Your task to perform on an android device: Go to accessibility settings Image 0: 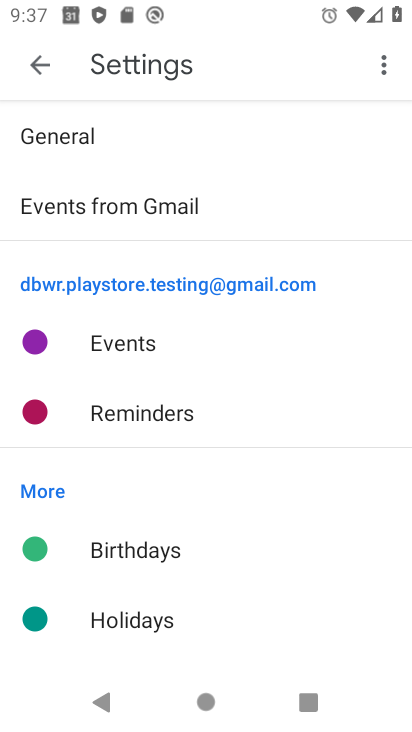
Step 0: press home button
Your task to perform on an android device: Go to accessibility settings Image 1: 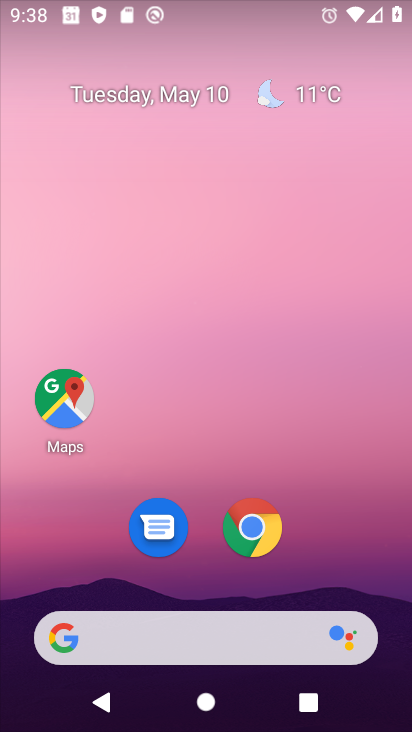
Step 1: drag from (342, 525) to (297, 53)
Your task to perform on an android device: Go to accessibility settings Image 2: 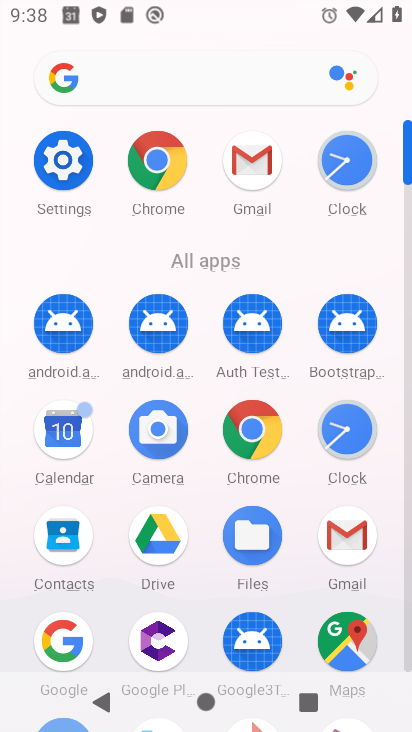
Step 2: click (62, 169)
Your task to perform on an android device: Go to accessibility settings Image 3: 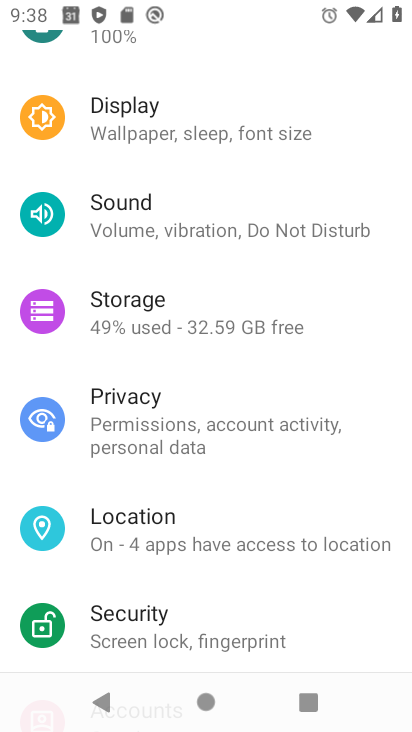
Step 3: drag from (247, 534) to (199, 197)
Your task to perform on an android device: Go to accessibility settings Image 4: 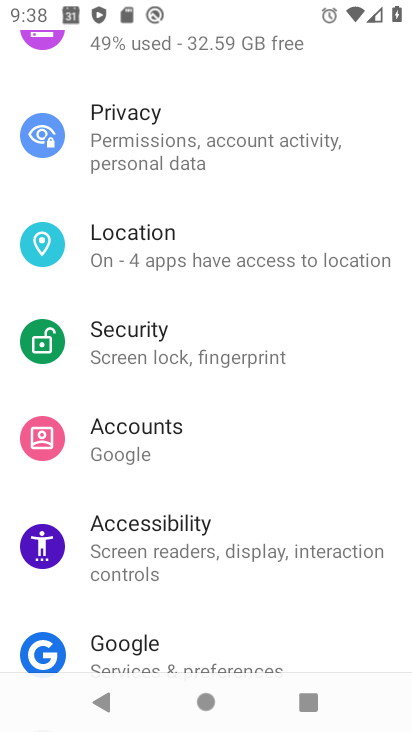
Step 4: click (266, 546)
Your task to perform on an android device: Go to accessibility settings Image 5: 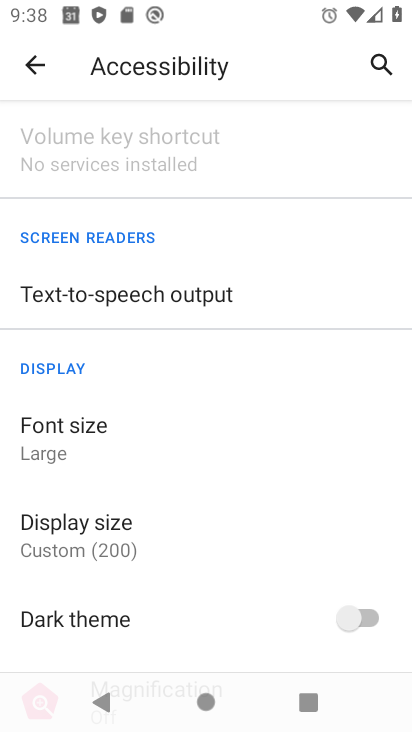
Step 5: task complete